Your task to perform on an android device: Search for Mexican restaurants on Maps Image 0: 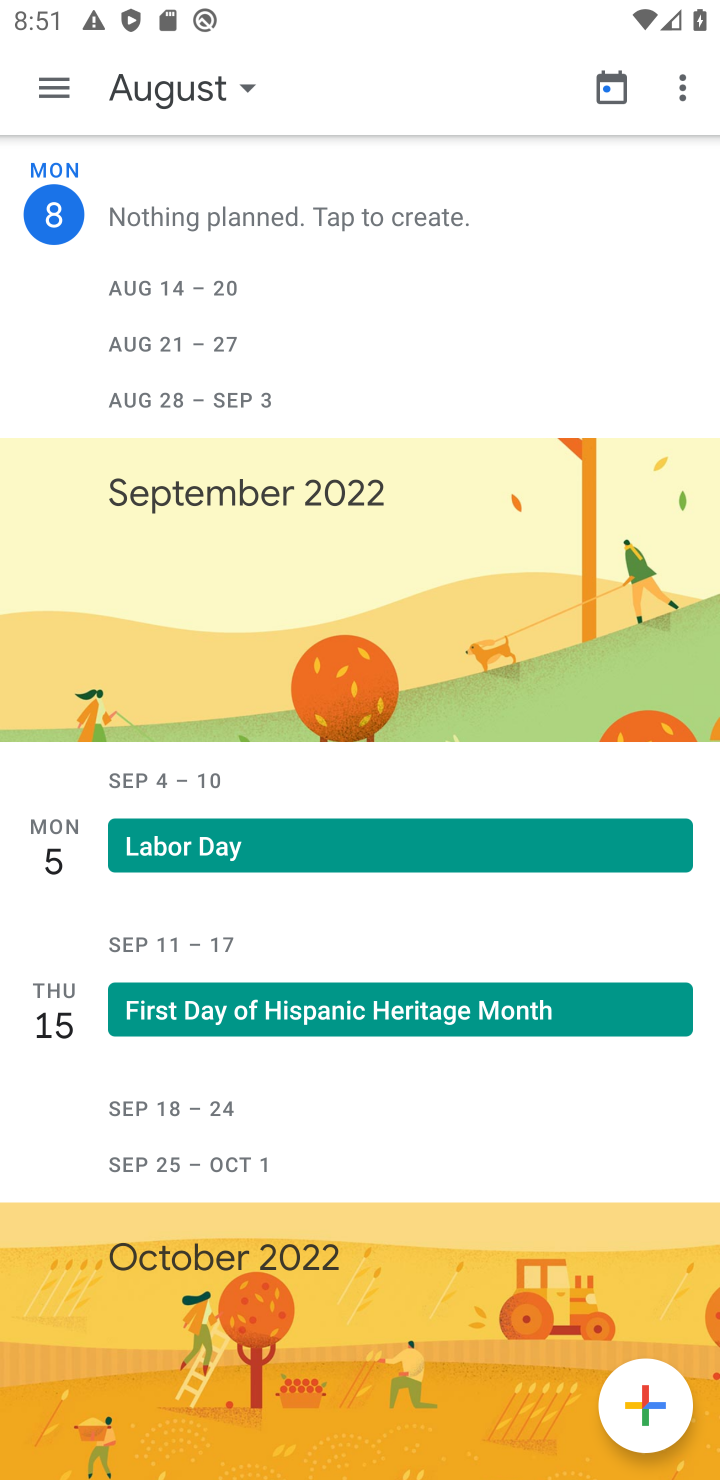
Step 0: press home button
Your task to perform on an android device: Search for Mexican restaurants on Maps Image 1: 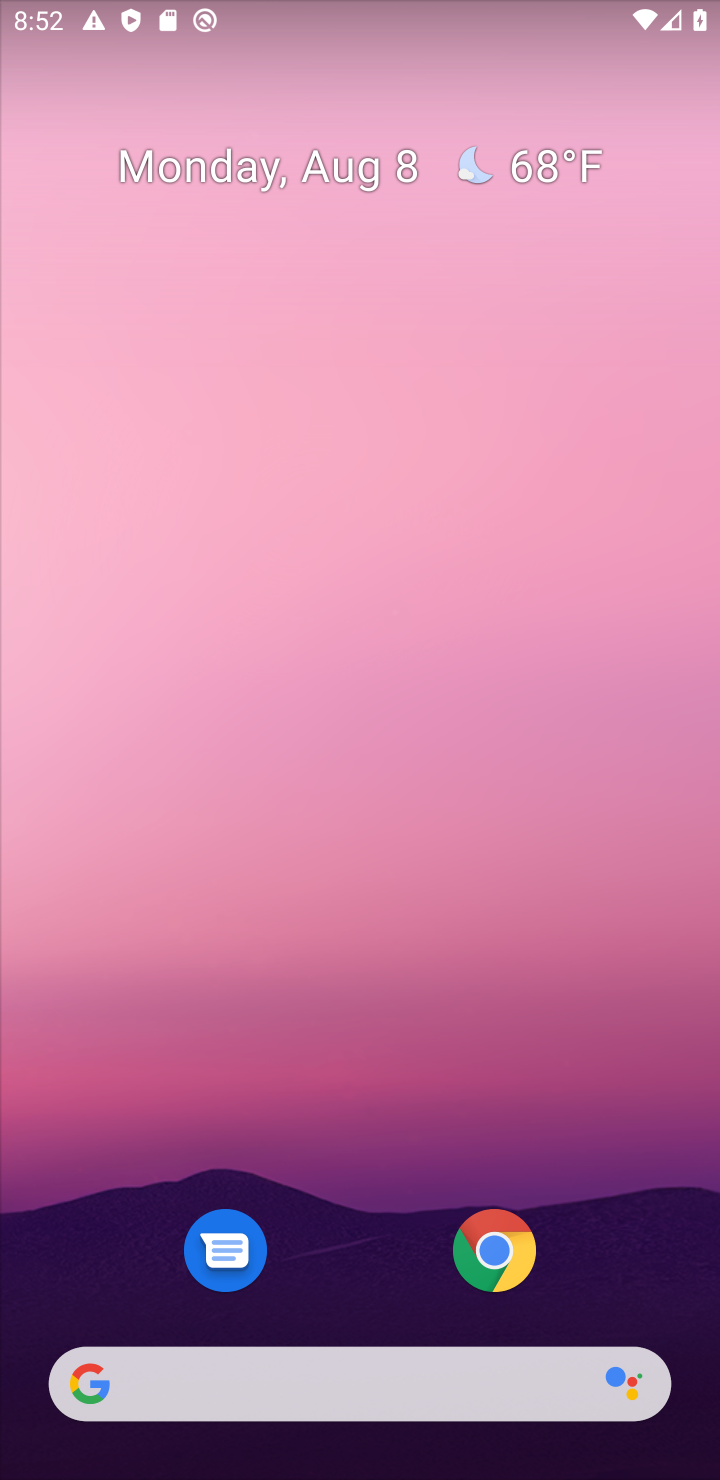
Step 1: drag from (667, 1233) to (642, 346)
Your task to perform on an android device: Search for Mexican restaurants on Maps Image 2: 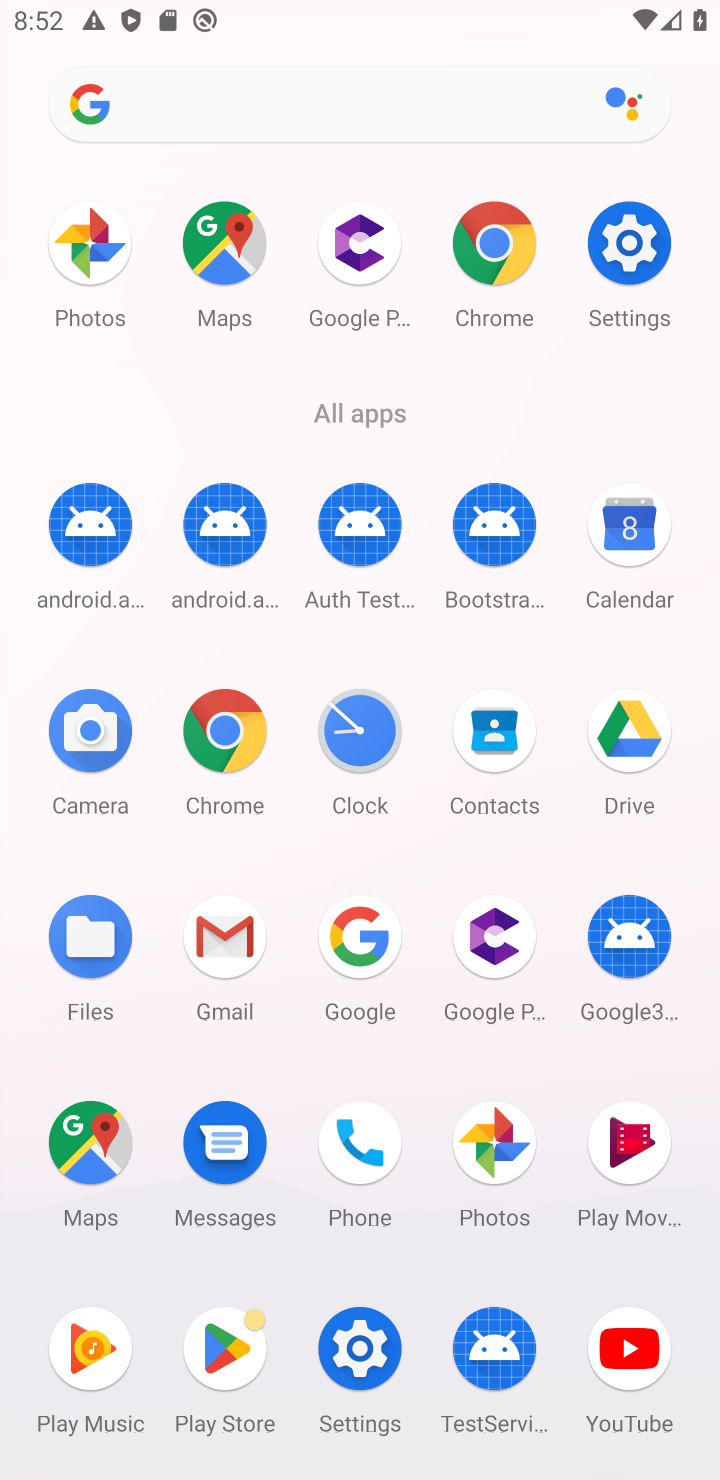
Step 2: click (97, 1160)
Your task to perform on an android device: Search for Mexican restaurants on Maps Image 3: 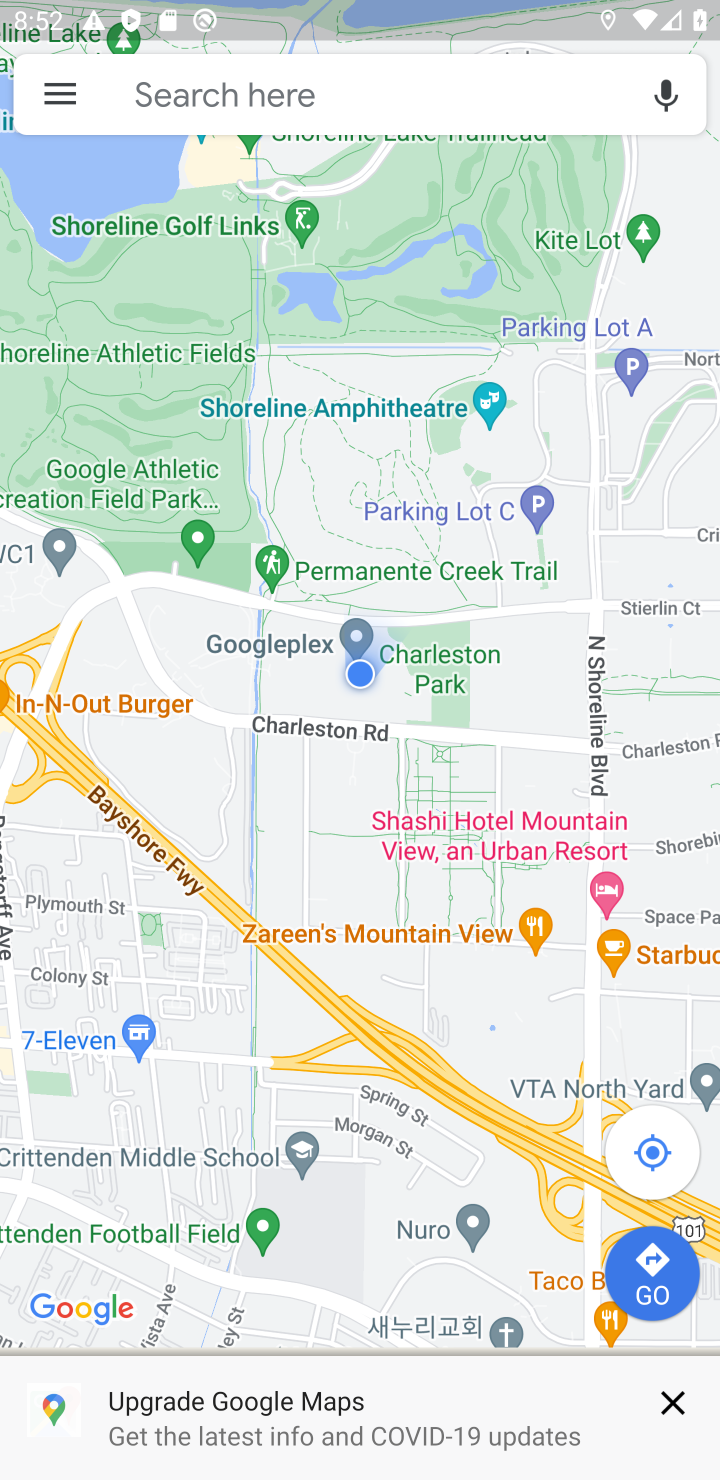
Step 3: click (326, 116)
Your task to perform on an android device: Search for Mexican restaurants on Maps Image 4: 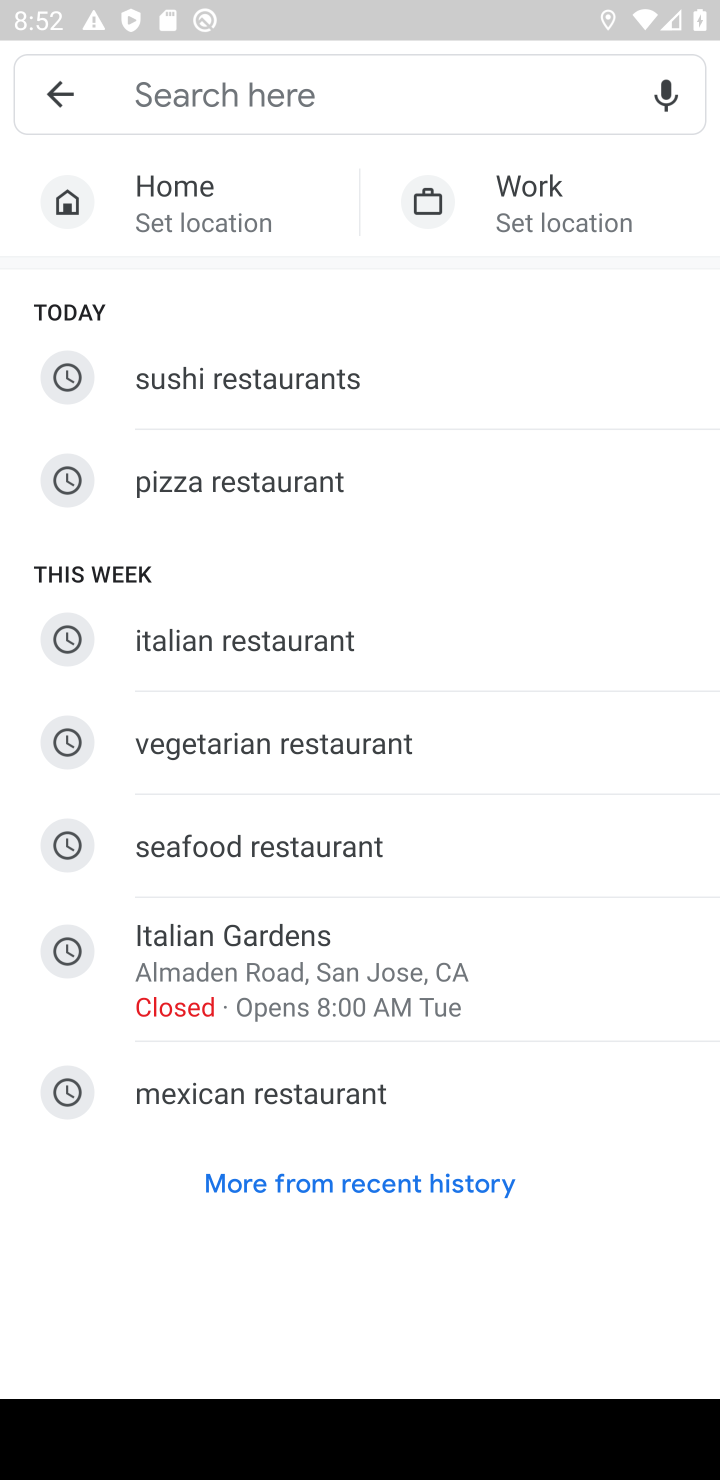
Step 4: click (360, 1087)
Your task to perform on an android device: Search for Mexican restaurants on Maps Image 5: 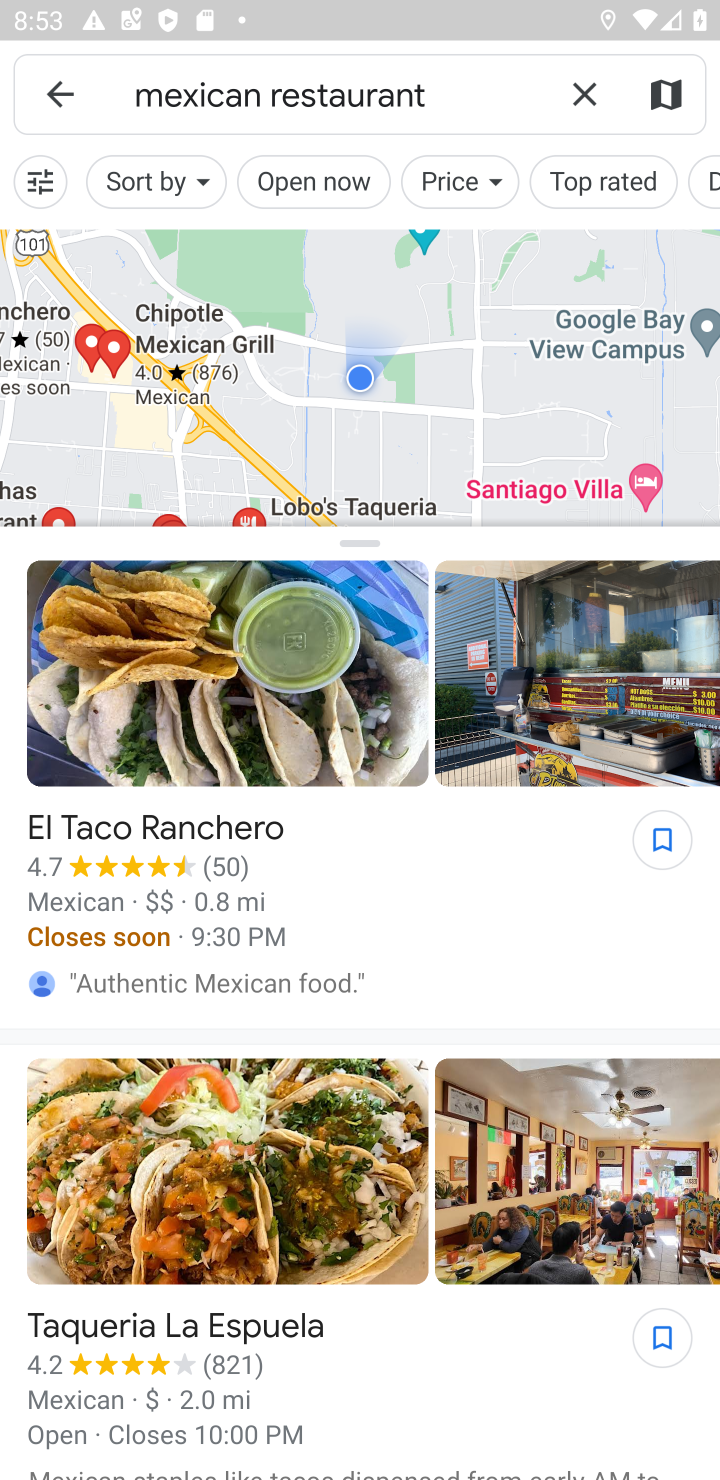
Step 5: task complete